Your task to perform on an android device: see sites visited before in the chrome app Image 0: 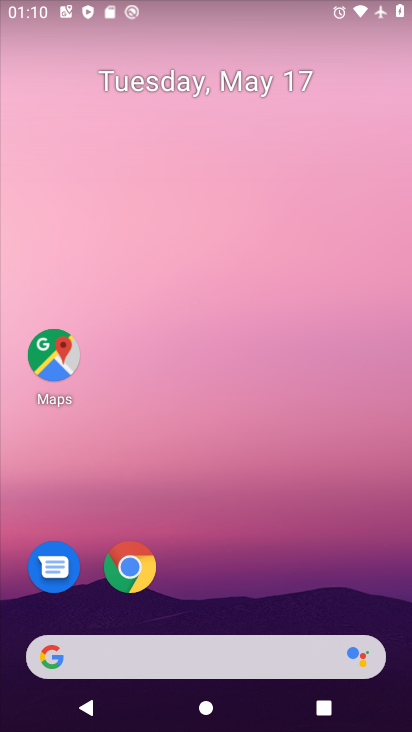
Step 0: click (117, 569)
Your task to perform on an android device: see sites visited before in the chrome app Image 1: 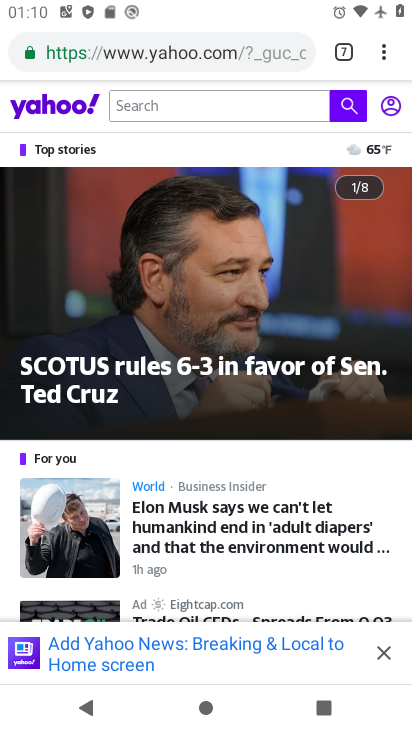
Step 1: click (381, 45)
Your task to perform on an android device: see sites visited before in the chrome app Image 2: 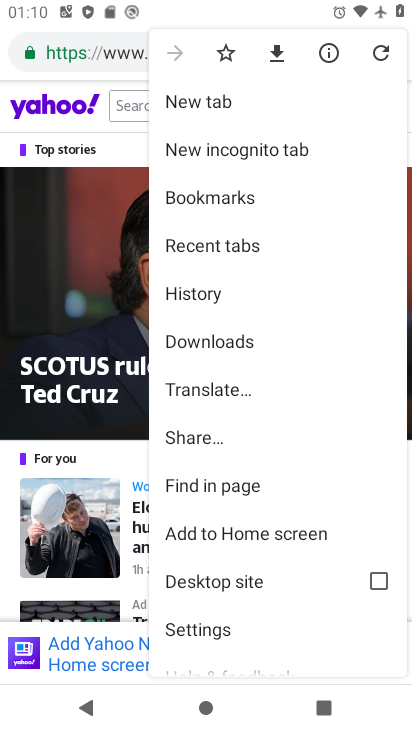
Step 2: click (203, 290)
Your task to perform on an android device: see sites visited before in the chrome app Image 3: 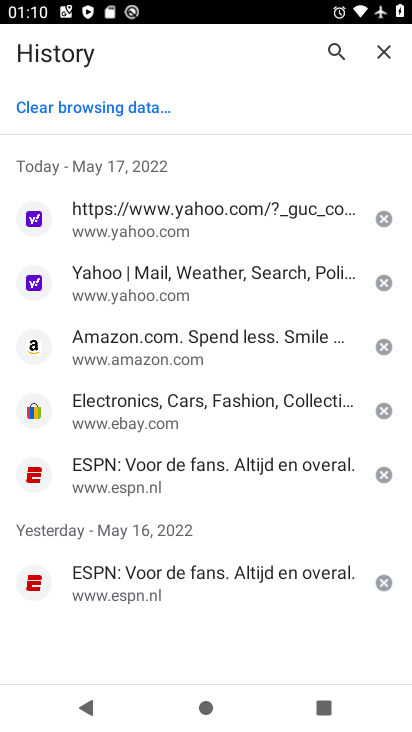
Step 3: task complete